Your task to perform on an android device: turn on sleep mode Image 0: 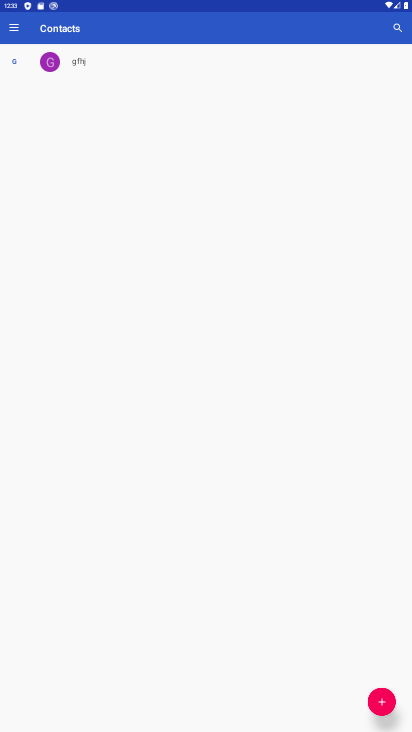
Step 0: press home button
Your task to perform on an android device: turn on sleep mode Image 1: 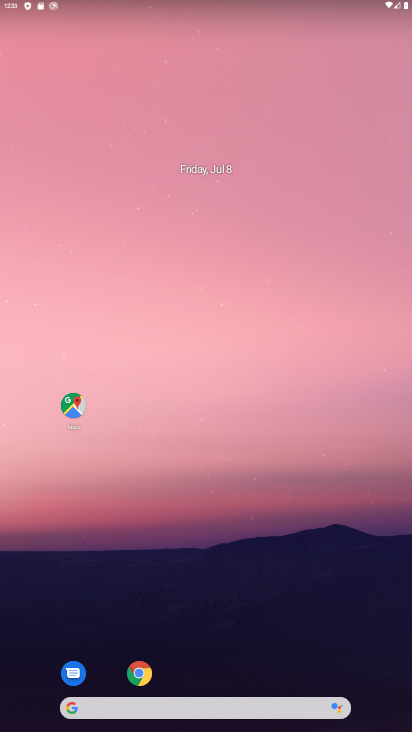
Step 1: drag from (202, 670) to (195, 5)
Your task to perform on an android device: turn on sleep mode Image 2: 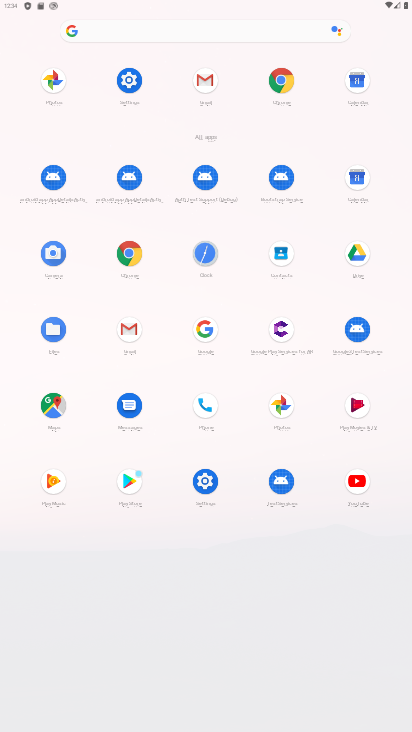
Step 2: click (130, 77)
Your task to perform on an android device: turn on sleep mode Image 3: 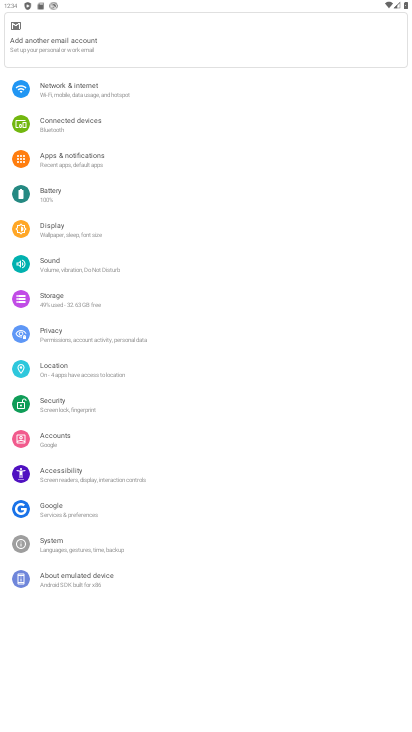
Step 3: click (74, 224)
Your task to perform on an android device: turn on sleep mode Image 4: 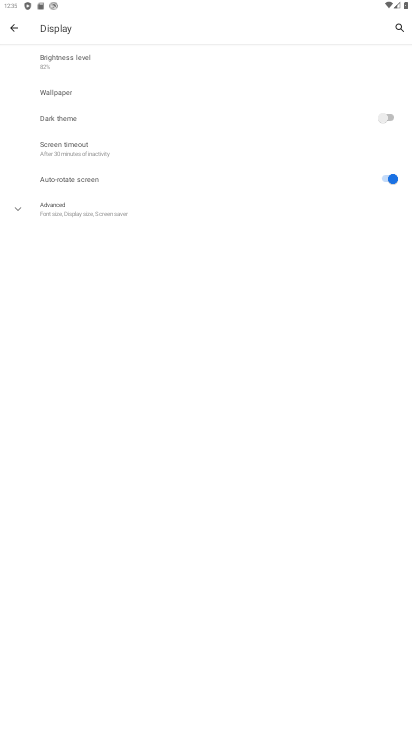
Step 4: click (21, 198)
Your task to perform on an android device: turn on sleep mode Image 5: 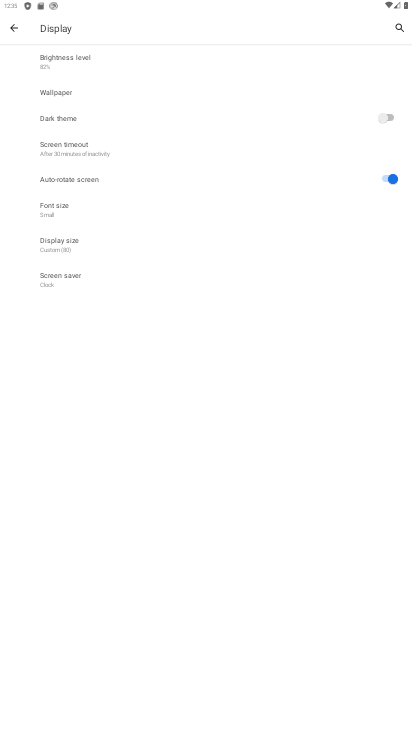
Step 5: task complete